Your task to perform on an android device: see sites visited before in the chrome app Image 0: 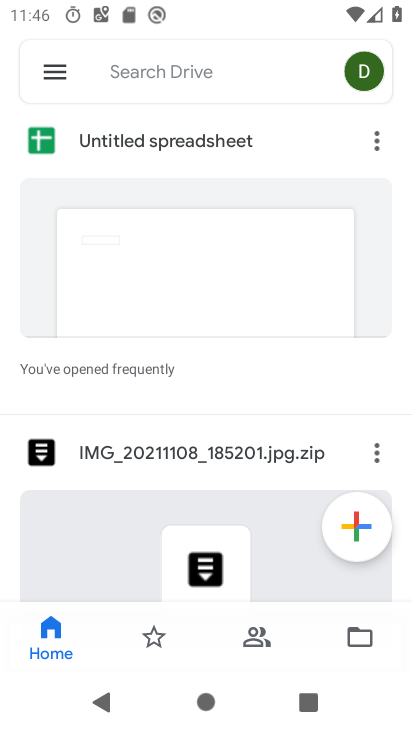
Step 0: press home button
Your task to perform on an android device: see sites visited before in the chrome app Image 1: 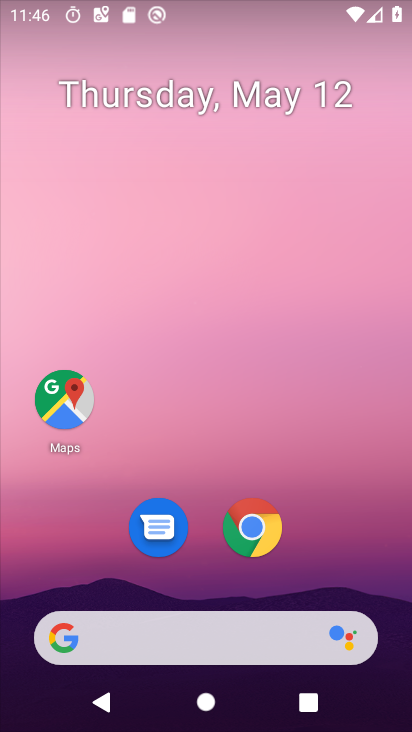
Step 1: click (248, 536)
Your task to perform on an android device: see sites visited before in the chrome app Image 2: 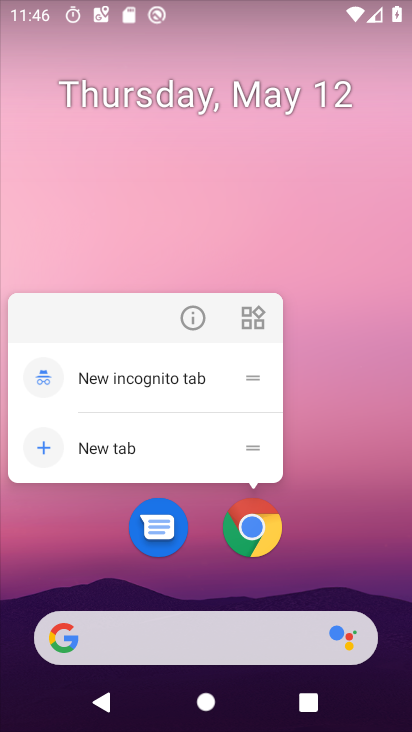
Step 2: click (248, 536)
Your task to perform on an android device: see sites visited before in the chrome app Image 3: 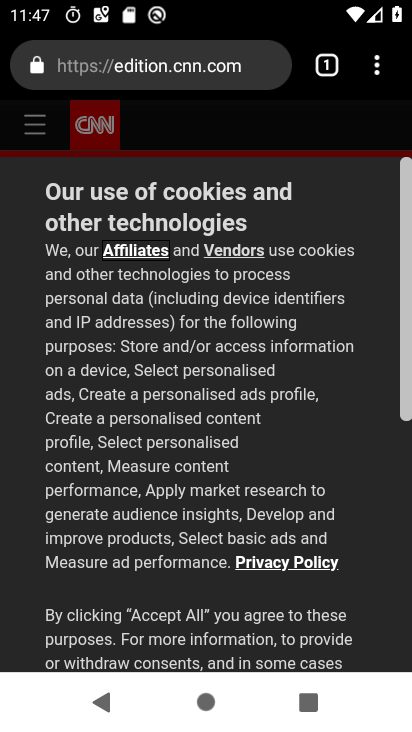
Step 3: click (378, 81)
Your task to perform on an android device: see sites visited before in the chrome app Image 4: 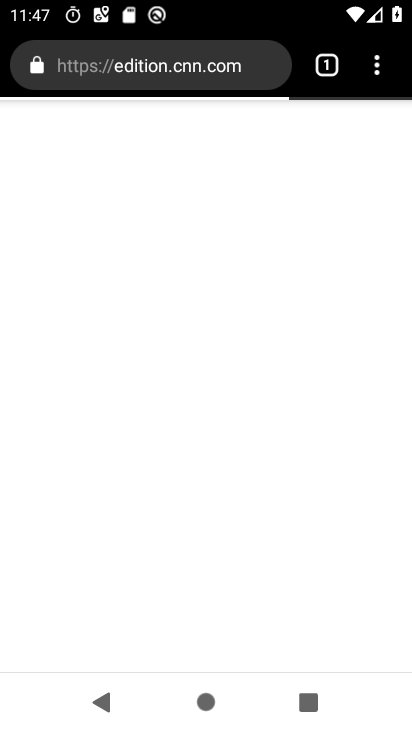
Step 4: click (378, 81)
Your task to perform on an android device: see sites visited before in the chrome app Image 5: 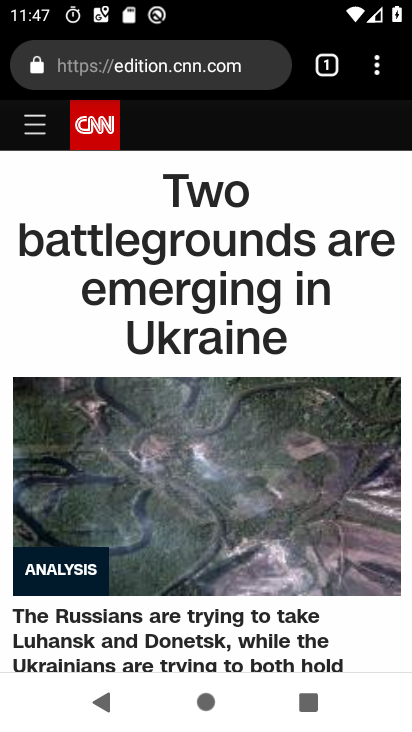
Step 5: click (376, 60)
Your task to perform on an android device: see sites visited before in the chrome app Image 6: 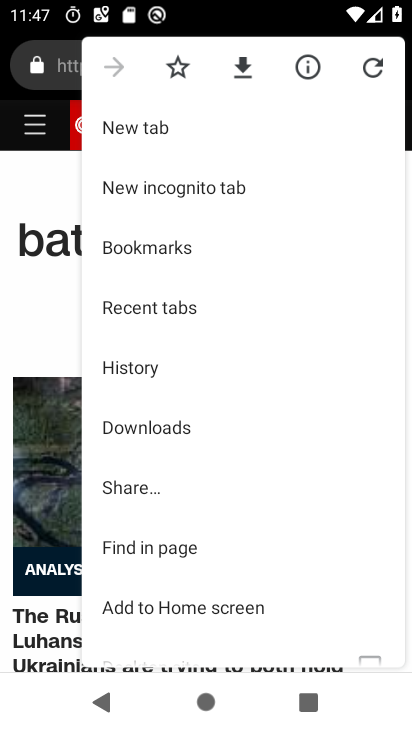
Step 6: click (140, 378)
Your task to perform on an android device: see sites visited before in the chrome app Image 7: 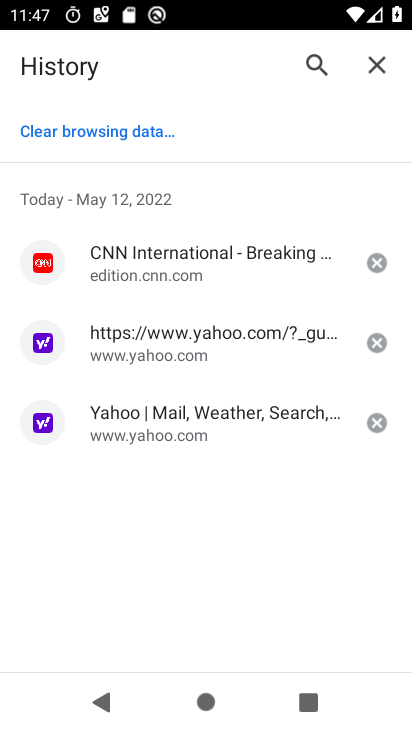
Step 7: task complete